Your task to perform on an android device: search for starred emails in the gmail app Image 0: 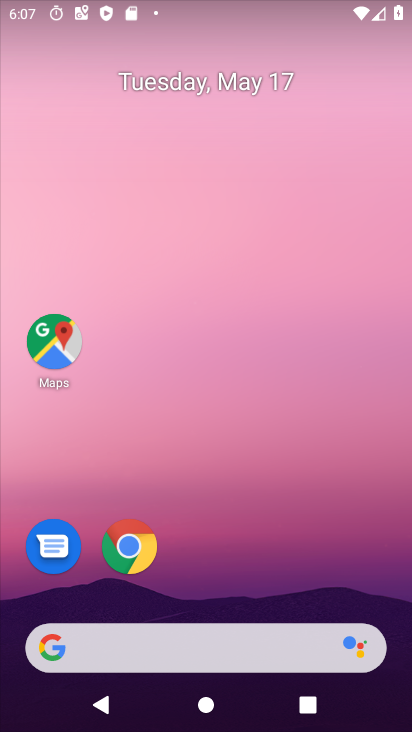
Step 0: drag from (204, 583) to (216, 157)
Your task to perform on an android device: search for starred emails in the gmail app Image 1: 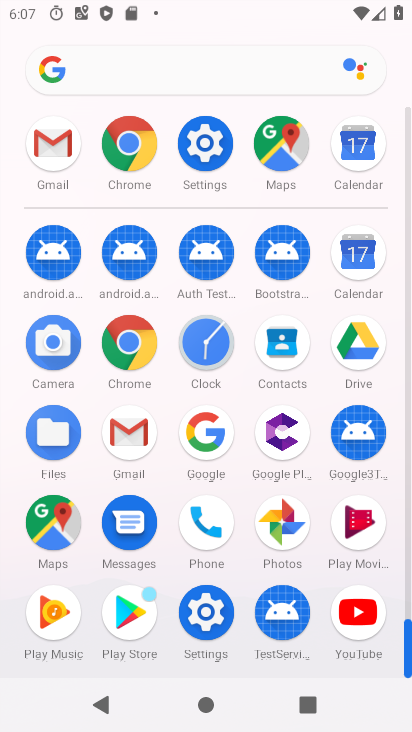
Step 1: click (56, 164)
Your task to perform on an android device: search for starred emails in the gmail app Image 2: 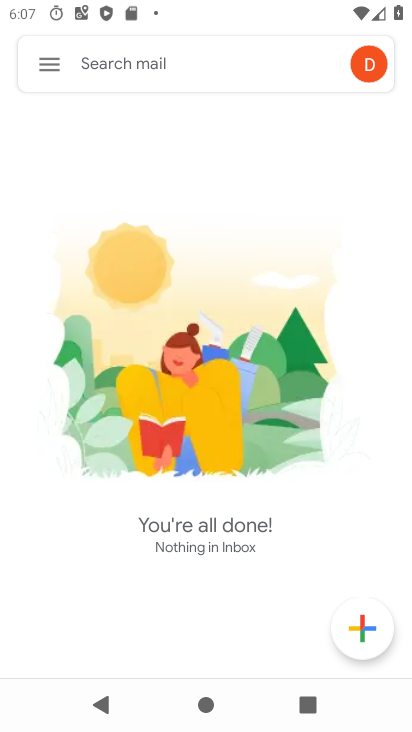
Step 2: click (56, 60)
Your task to perform on an android device: search for starred emails in the gmail app Image 3: 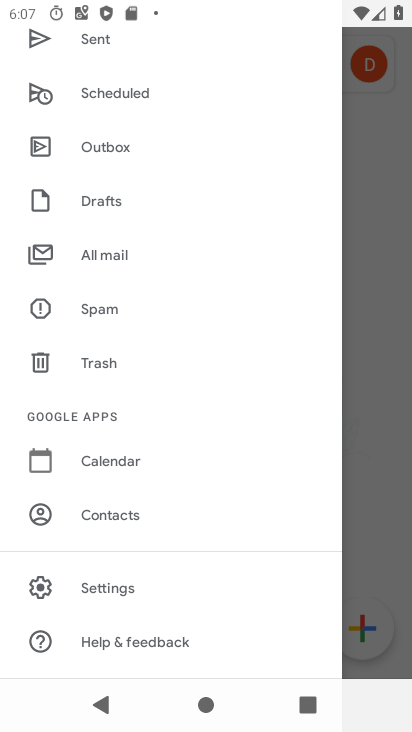
Step 3: drag from (138, 212) to (125, 486)
Your task to perform on an android device: search for starred emails in the gmail app Image 4: 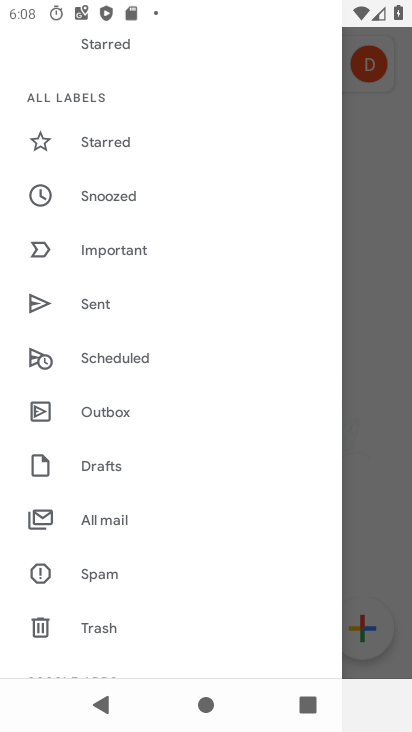
Step 4: click (120, 149)
Your task to perform on an android device: search for starred emails in the gmail app Image 5: 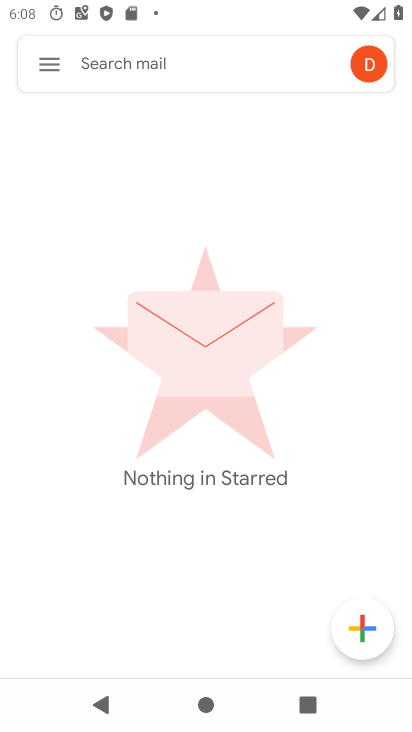
Step 5: task complete